Your task to perform on an android device: Open Youtube and go to the subscriptions tab Image 0: 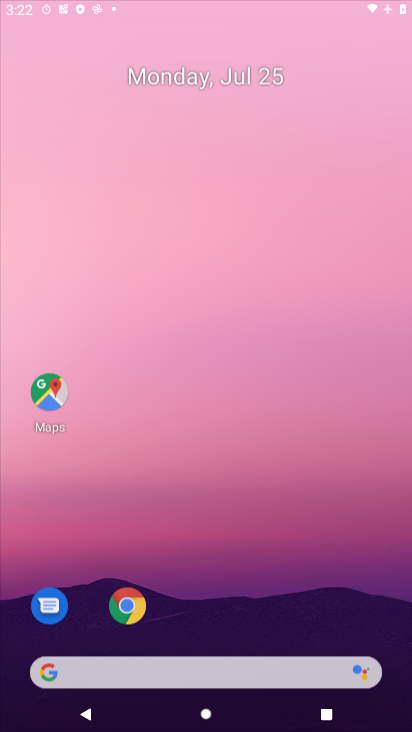
Step 0: click (256, 301)
Your task to perform on an android device: Open Youtube and go to the subscriptions tab Image 1: 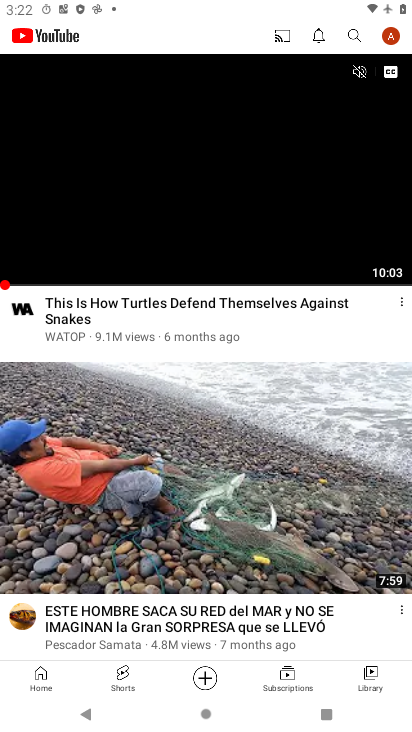
Step 1: press home button
Your task to perform on an android device: Open Youtube and go to the subscriptions tab Image 2: 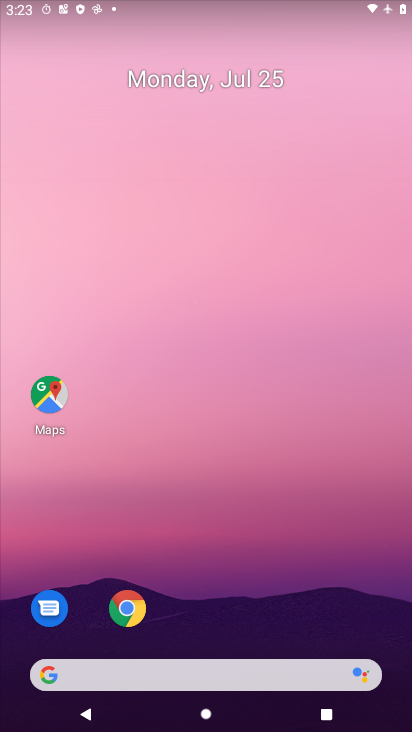
Step 2: drag from (168, 569) to (202, 225)
Your task to perform on an android device: Open Youtube and go to the subscriptions tab Image 3: 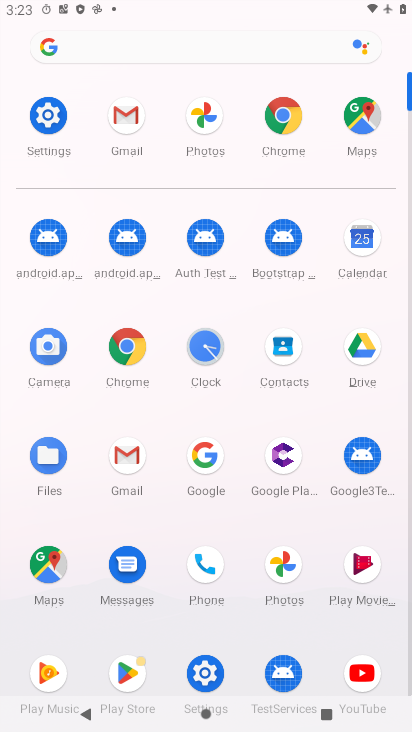
Step 3: drag from (211, 495) to (211, 267)
Your task to perform on an android device: Open Youtube and go to the subscriptions tab Image 4: 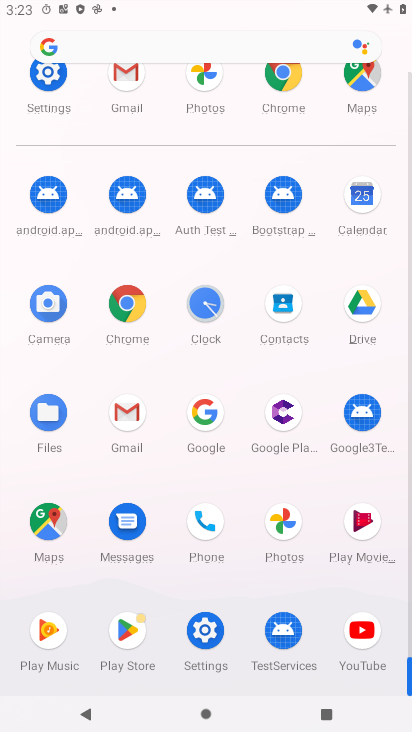
Step 4: click (350, 638)
Your task to perform on an android device: Open Youtube and go to the subscriptions tab Image 5: 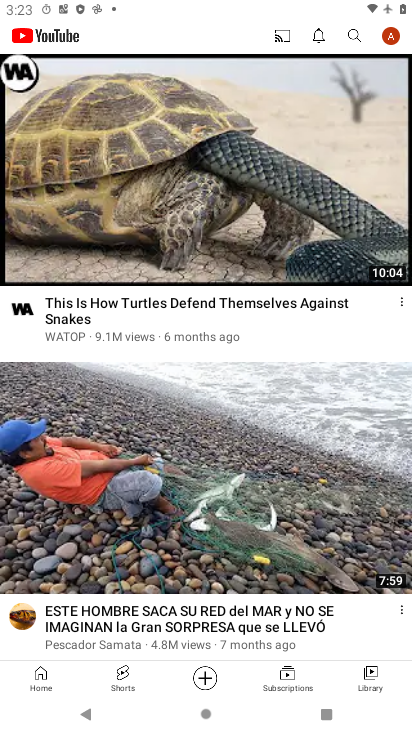
Step 5: click (283, 684)
Your task to perform on an android device: Open Youtube and go to the subscriptions tab Image 6: 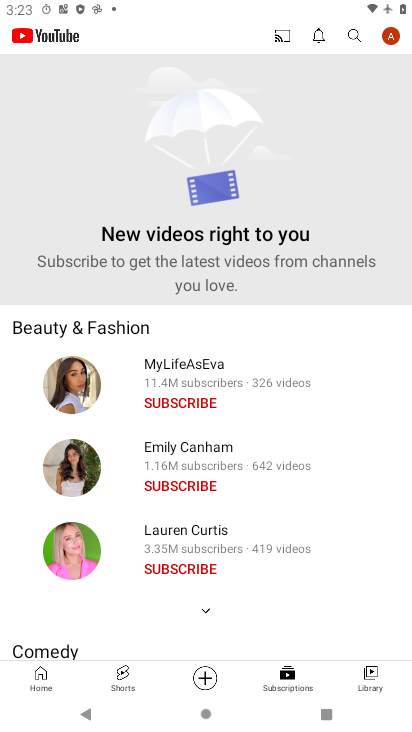
Step 6: task complete